Your task to perform on an android device: Open Google Image 0: 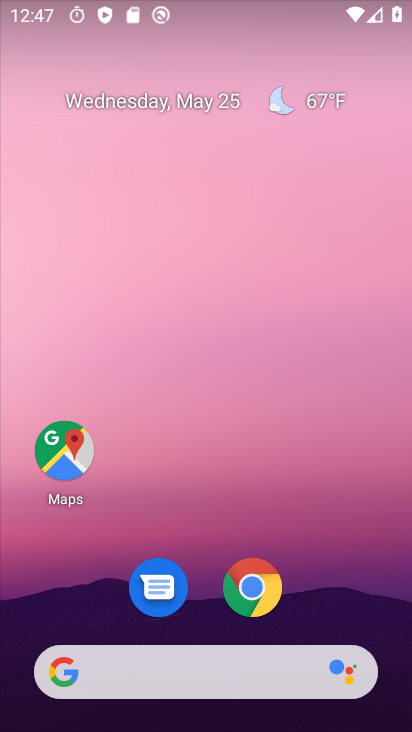
Step 0: drag from (200, 730) to (199, 189)
Your task to perform on an android device: Open Google Image 1: 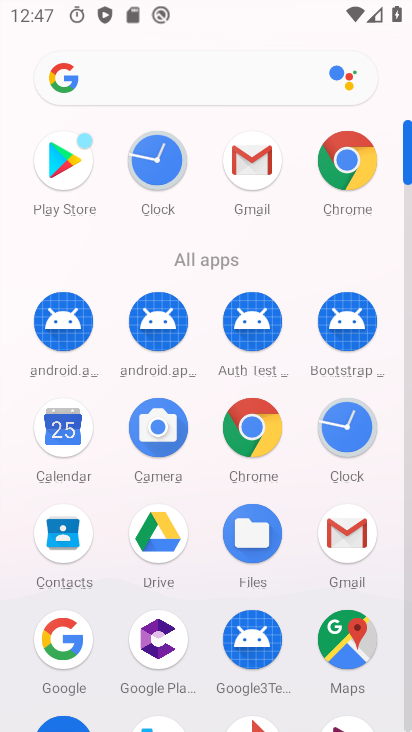
Step 1: click (68, 637)
Your task to perform on an android device: Open Google Image 2: 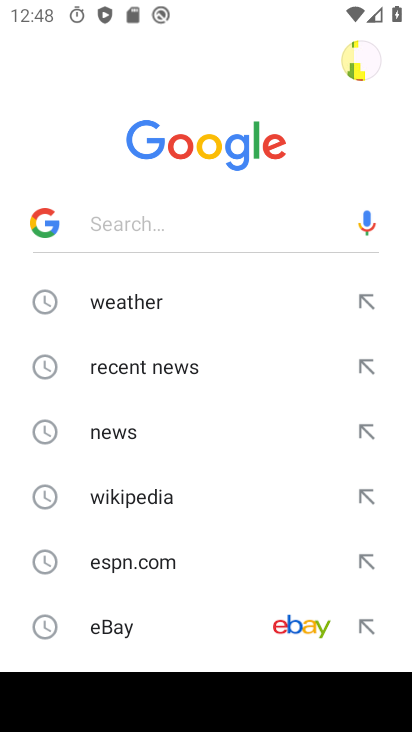
Step 2: task complete